Your task to perform on an android device: Do I have any events tomorrow? Image 0: 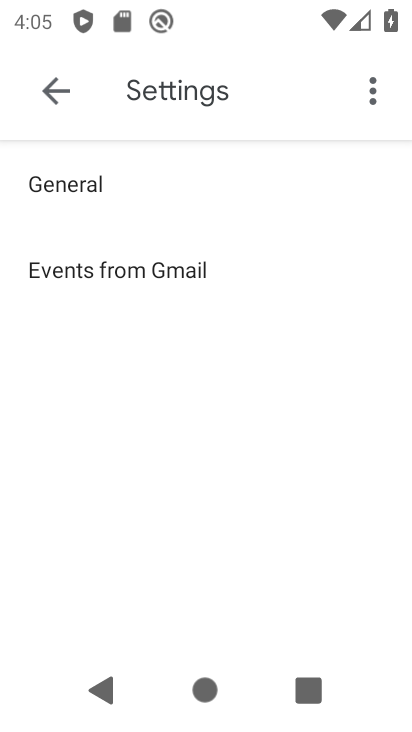
Step 0: press home button
Your task to perform on an android device: Do I have any events tomorrow? Image 1: 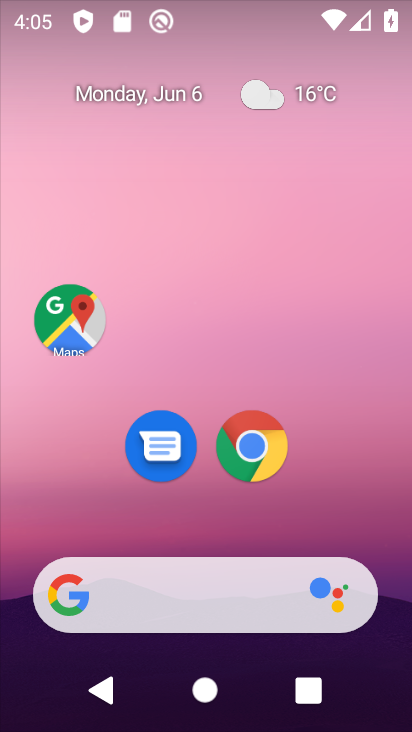
Step 1: drag from (138, 545) to (233, 41)
Your task to perform on an android device: Do I have any events tomorrow? Image 2: 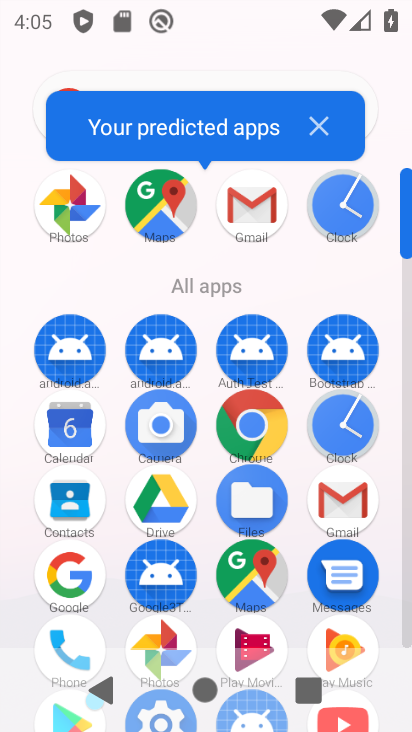
Step 2: click (74, 434)
Your task to perform on an android device: Do I have any events tomorrow? Image 3: 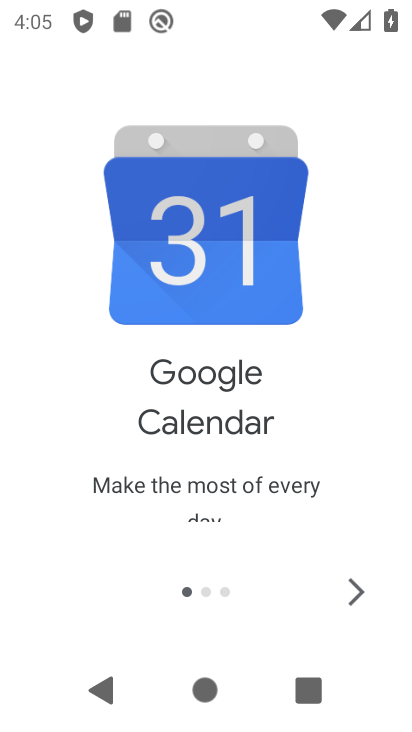
Step 3: click (358, 611)
Your task to perform on an android device: Do I have any events tomorrow? Image 4: 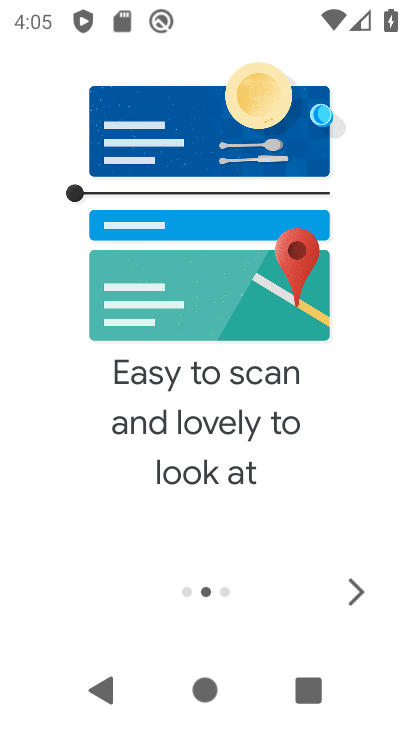
Step 4: click (359, 612)
Your task to perform on an android device: Do I have any events tomorrow? Image 5: 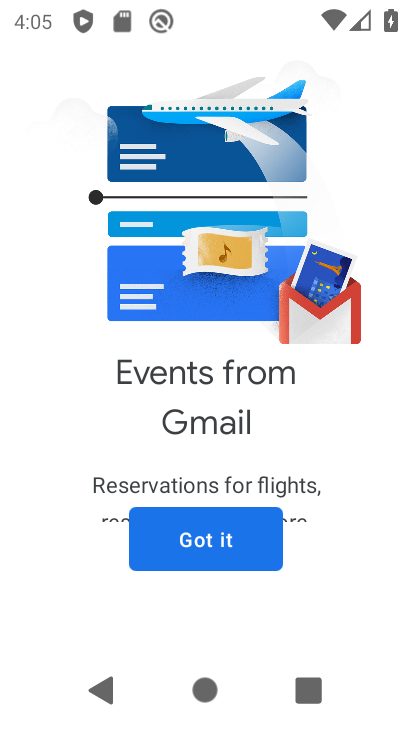
Step 5: click (359, 612)
Your task to perform on an android device: Do I have any events tomorrow? Image 6: 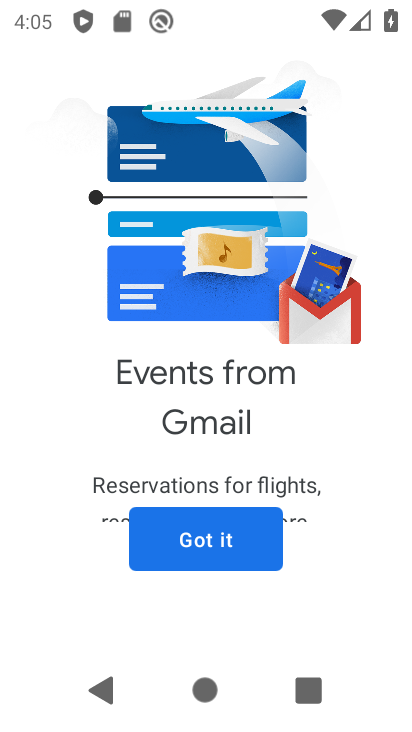
Step 6: click (255, 550)
Your task to perform on an android device: Do I have any events tomorrow? Image 7: 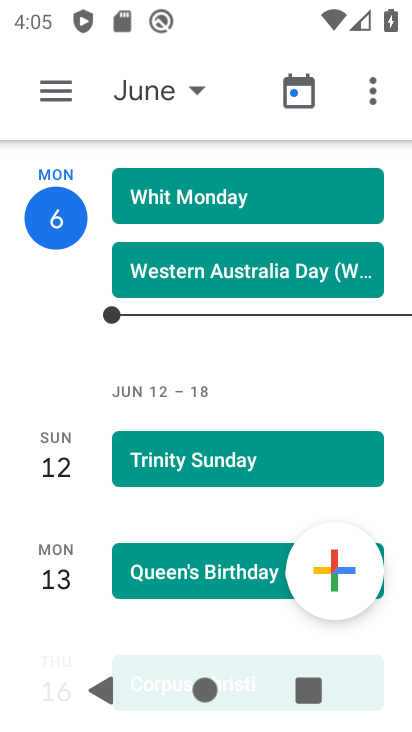
Step 7: click (136, 91)
Your task to perform on an android device: Do I have any events tomorrow? Image 8: 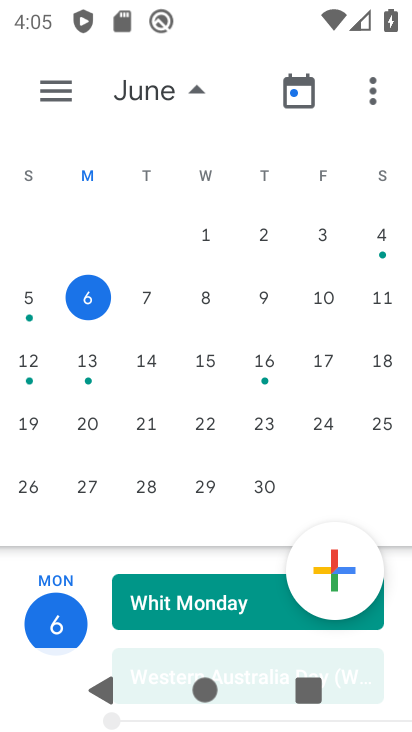
Step 8: click (148, 304)
Your task to perform on an android device: Do I have any events tomorrow? Image 9: 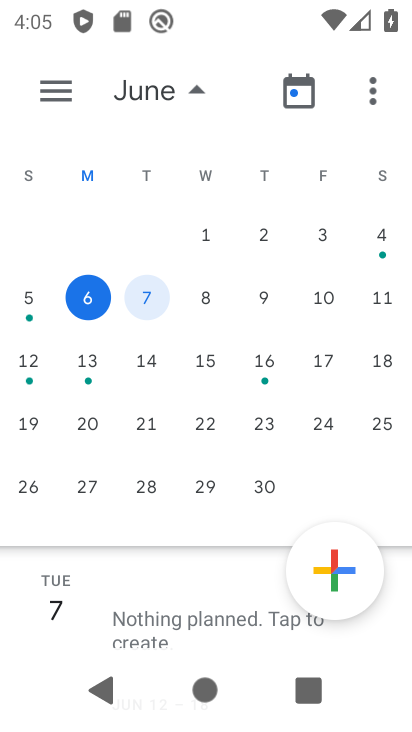
Step 9: click (191, 100)
Your task to perform on an android device: Do I have any events tomorrow? Image 10: 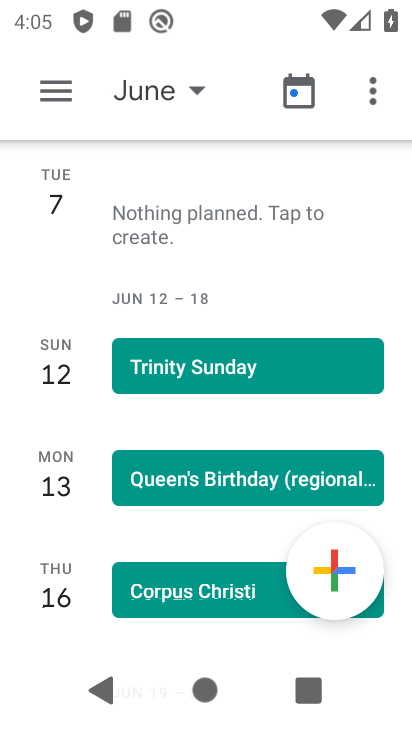
Step 10: task complete